Your task to perform on an android device: Go to Wikipedia Image 0: 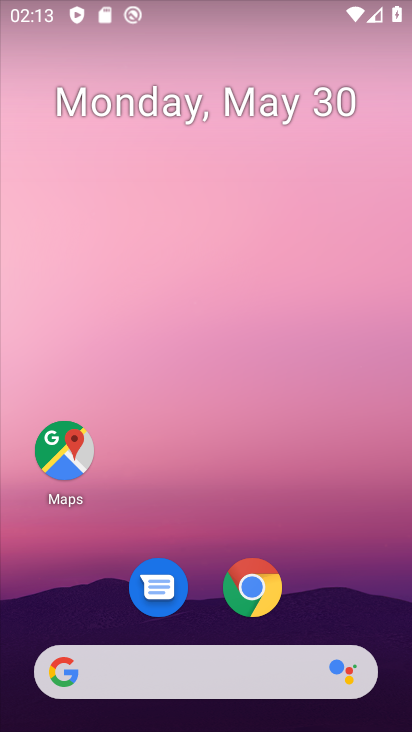
Step 0: click (258, 592)
Your task to perform on an android device: Go to Wikipedia Image 1: 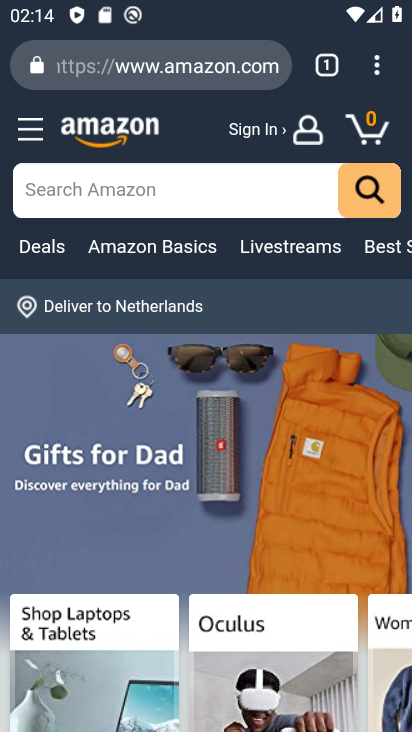
Step 1: click (334, 67)
Your task to perform on an android device: Go to Wikipedia Image 2: 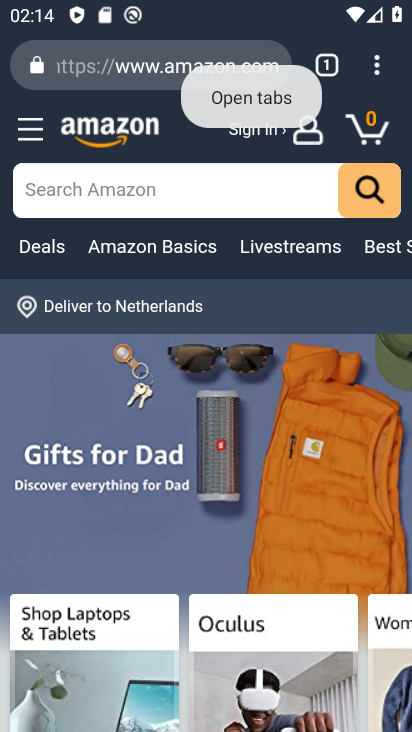
Step 2: click (331, 72)
Your task to perform on an android device: Go to Wikipedia Image 3: 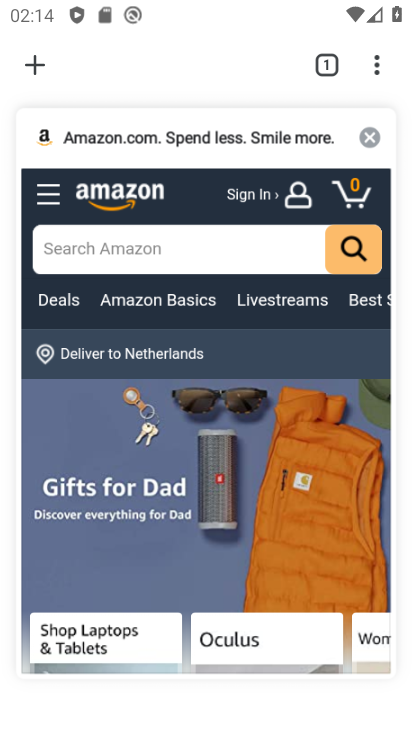
Step 3: click (368, 137)
Your task to perform on an android device: Go to Wikipedia Image 4: 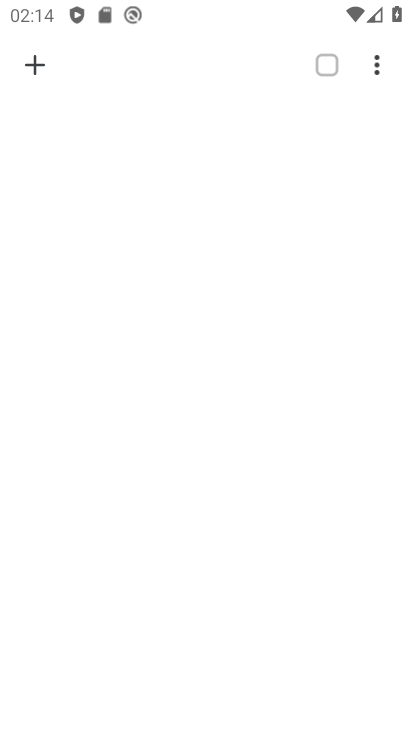
Step 4: click (28, 71)
Your task to perform on an android device: Go to Wikipedia Image 5: 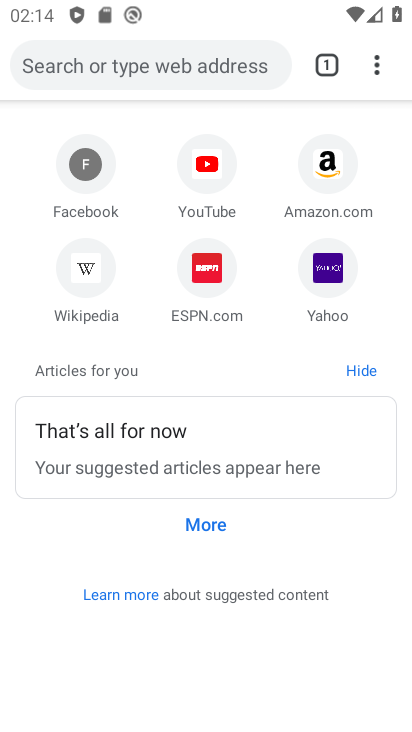
Step 5: click (91, 281)
Your task to perform on an android device: Go to Wikipedia Image 6: 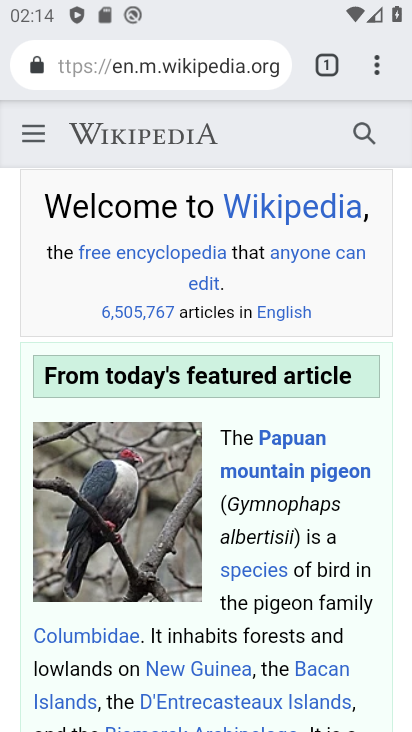
Step 6: task complete